Your task to perform on an android device: turn off location history Image 0: 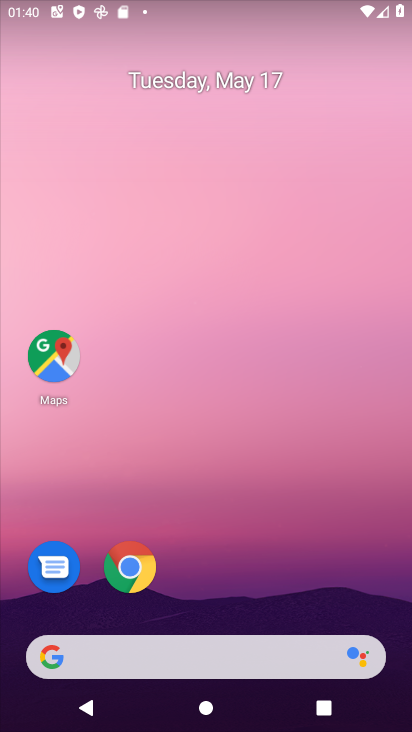
Step 0: click (54, 356)
Your task to perform on an android device: turn off location history Image 1: 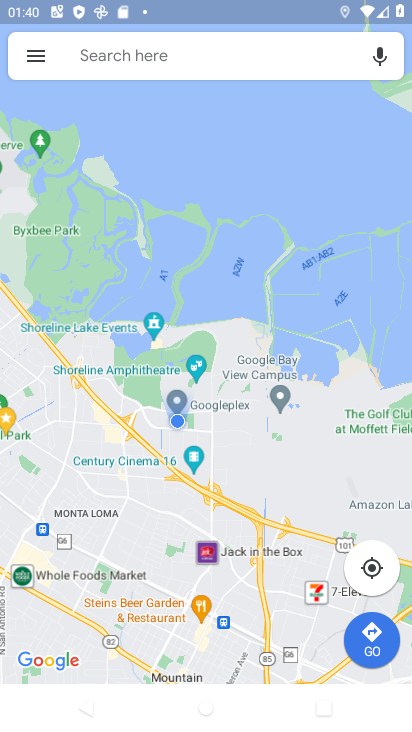
Step 1: click (42, 55)
Your task to perform on an android device: turn off location history Image 2: 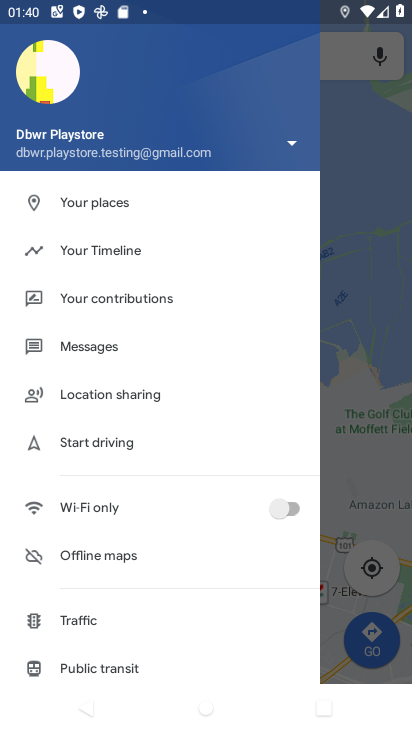
Step 2: drag from (207, 628) to (204, 222)
Your task to perform on an android device: turn off location history Image 3: 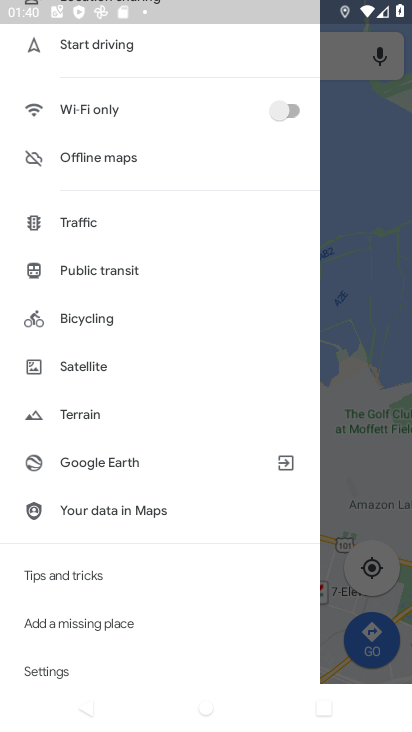
Step 3: drag from (151, 639) to (180, 271)
Your task to perform on an android device: turn off location history Image 4: 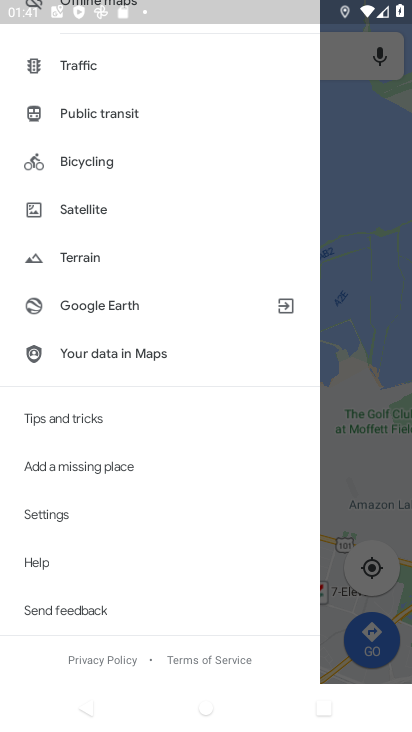
Step 4: click (57, 513)
Your task to perform on an android device: turn off location history Image 5: 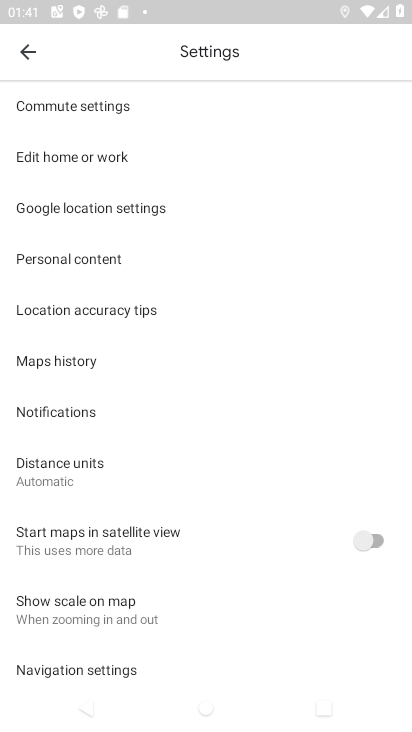
Step 5: click (83, 258)
Your task to perform on an android device: turn off location history Image 6: 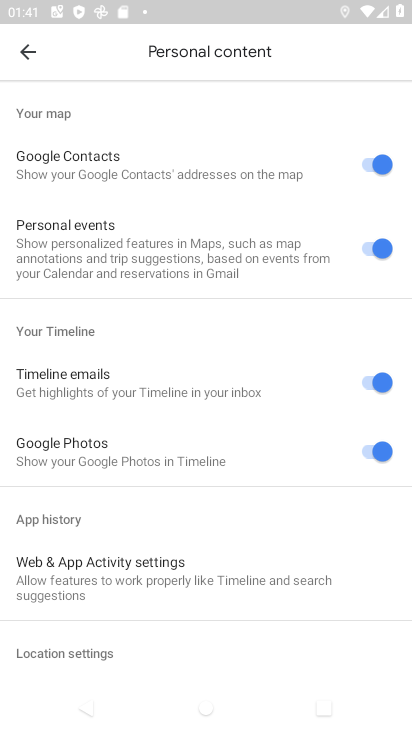
Step 6: drag from (289, 634) to (286, 86)
Your task to perform on an android device: turn off location history Image 7: 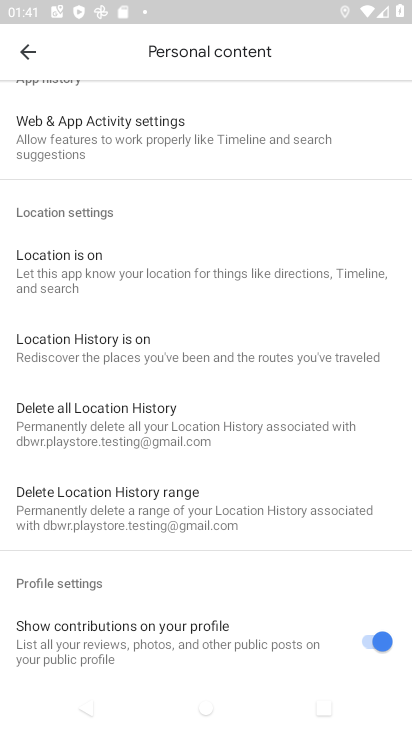
Step 7: click (70, 345)
Your task to perform on an android device: turn off location history Image 8: 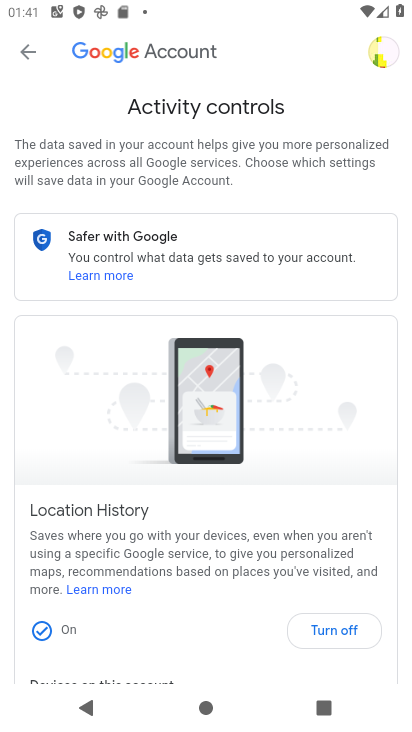
Step 8: click (329, 629)
Your task to perform on an android device: turn off location history Image 9: 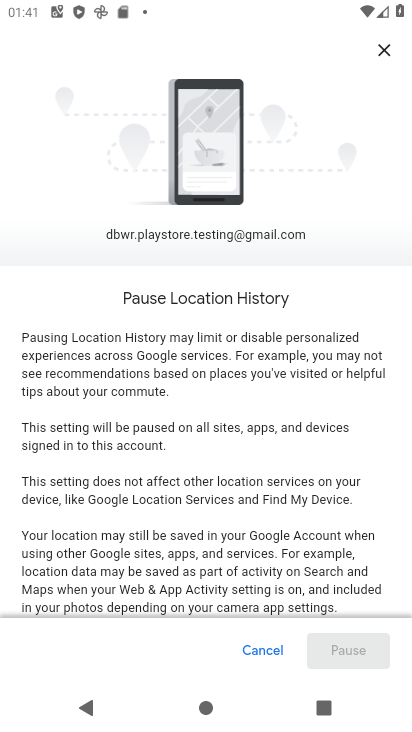
Step 9: drag from (292, 575) to (269, 71)
Your task to perform on an android device: turn off location history Image 10: 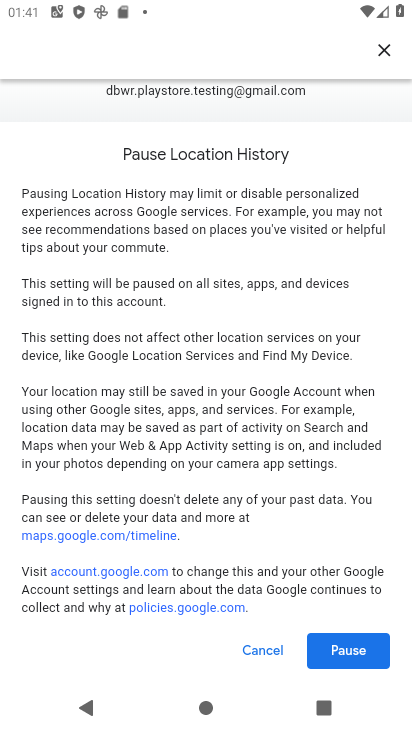
Step 10: click (351, 651)
Your task to perform on an android device: turn off location history Image 11: 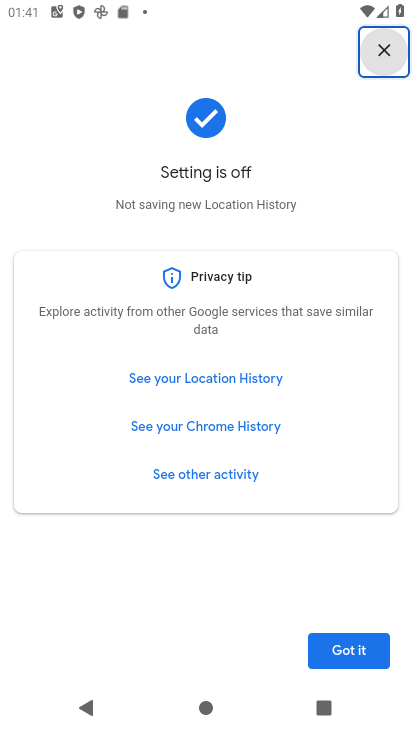
Step 11: click (345, 652)
Your task to perform on an android device: turn off location history Image 12: 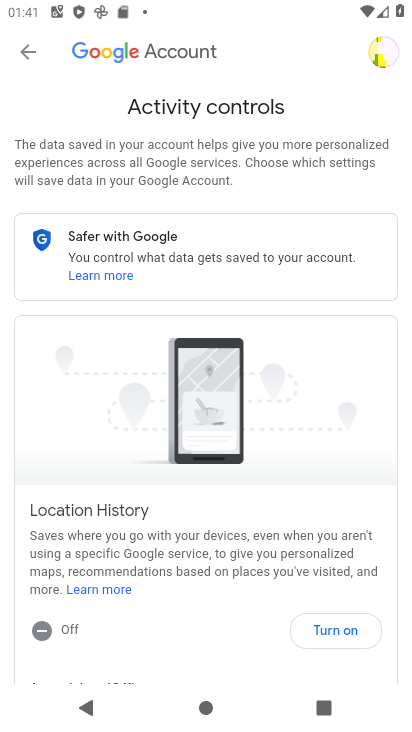
Step 12: task complete